Your task to perform on an android device: Open Google Chrome Image 0: 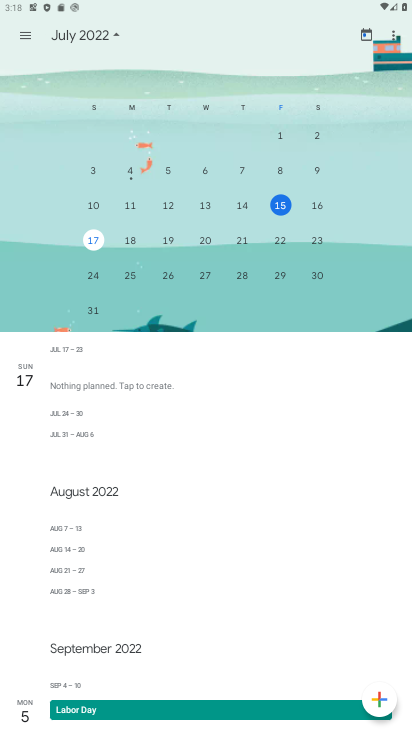
Step 0: press home button
Your task to perform on an android device: Open Google Chrome Image 1: 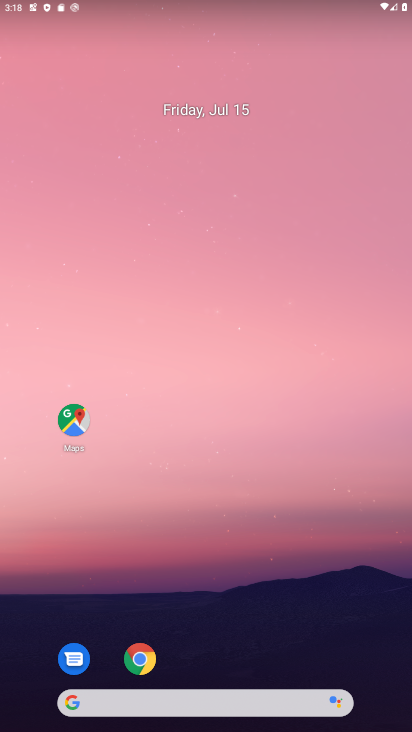
Step 1: click (139, 663)
Your task to perform on an android device: Open Google Chrome Image 2: 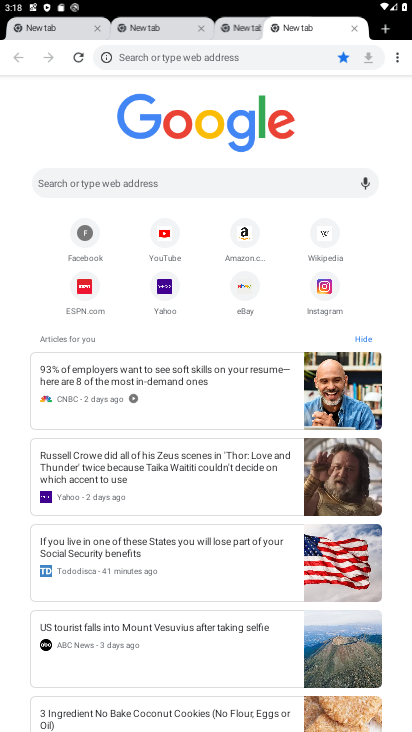
Step 2: task complete